Your task to perform on an android device: create a new album in the google photos Image 0: 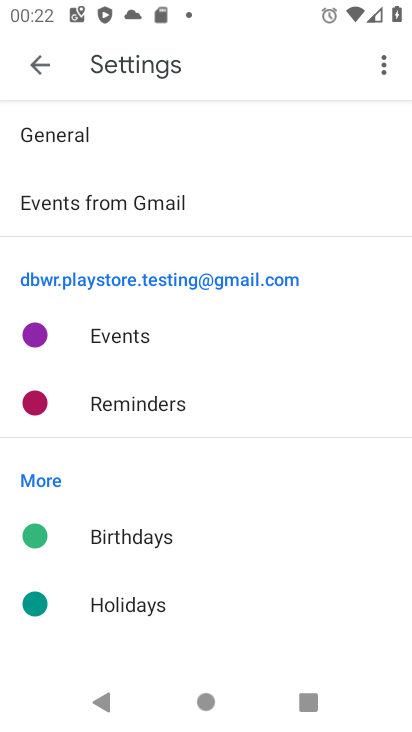
Step 0: press home button
Your task to perform on an android device: create a new album in the google photos Image 1: 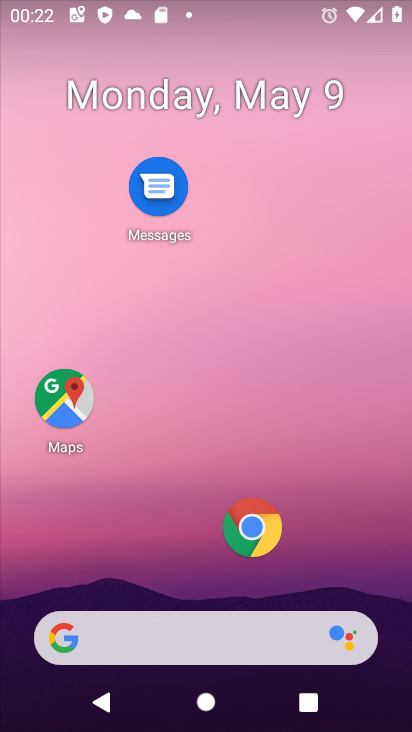
Step 1: drag from (175, 553) to (133, 12)
Your task to perform on an android device: create a new album in the google photos Image 2: 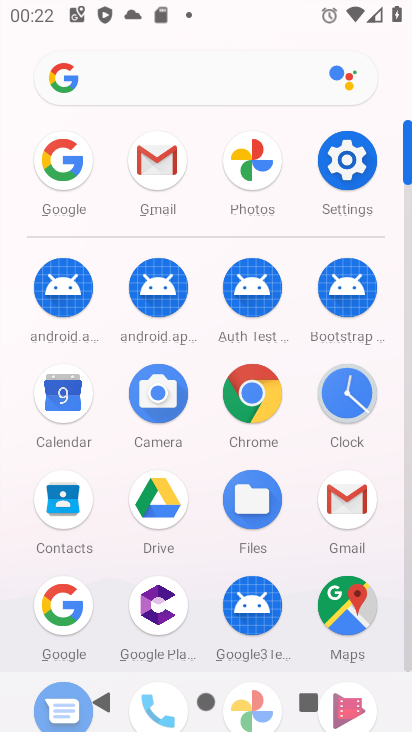
Step 2: click (254, 152)
Your task to perform on an android device: create a new album in the google photos Image 3: 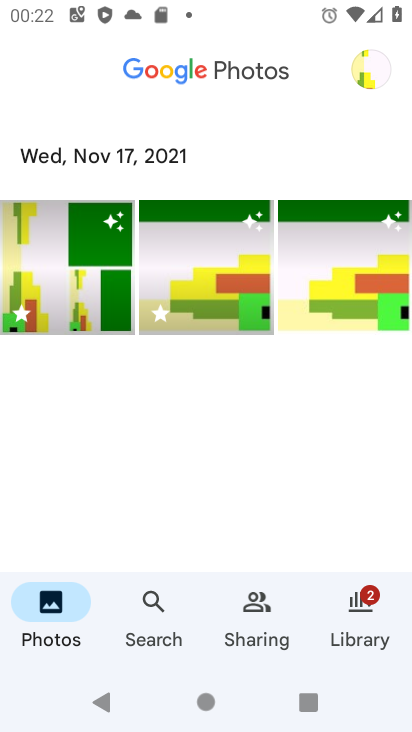
Step 3: click (352, 623)
Your task to perform on an android device: create a new album in the google photos Image 4: 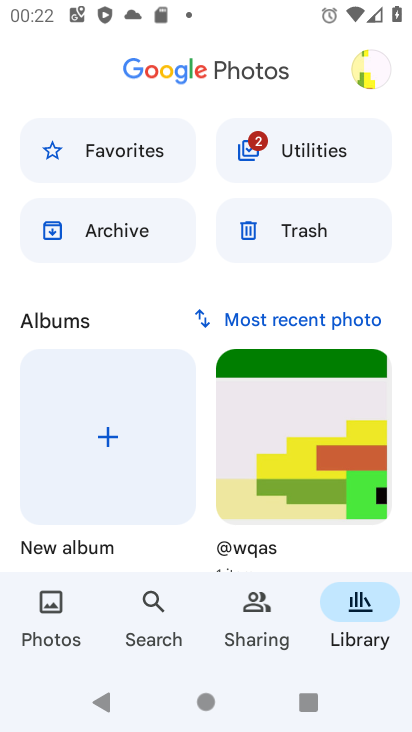
Step 4: click (135, 469)
Your task to perform on an android device: create a new album in the google photos Image 5: 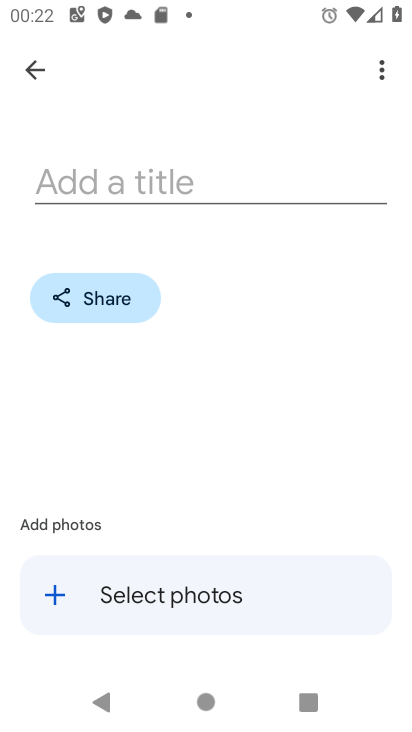
Step 5: click (172, 180)
Your task to perform on an android device: create a new album in the google photos Image 6: 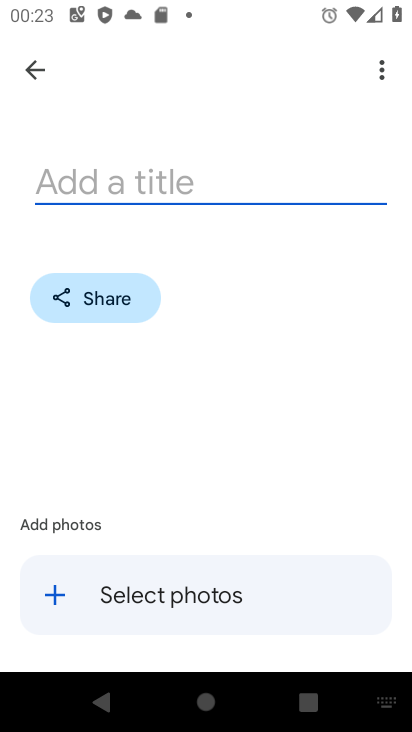
Step 6: type "hfhgg"
Your task to perform on an android device: create a new album in the google photos Image 7: 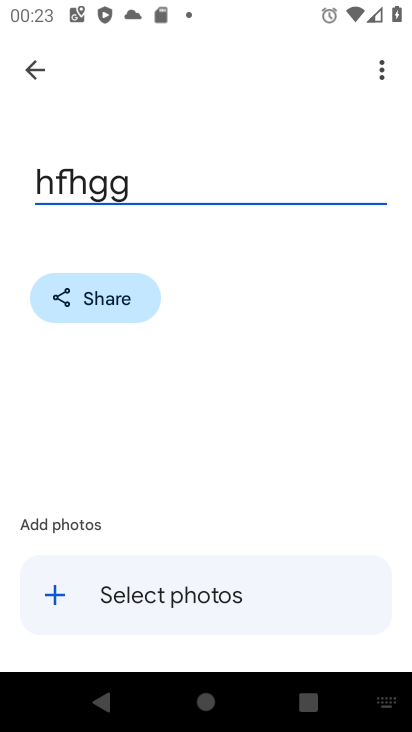
Step 7: click (51, 590)
Your task to perform on an android device: create a new album in the google photos Image 8: 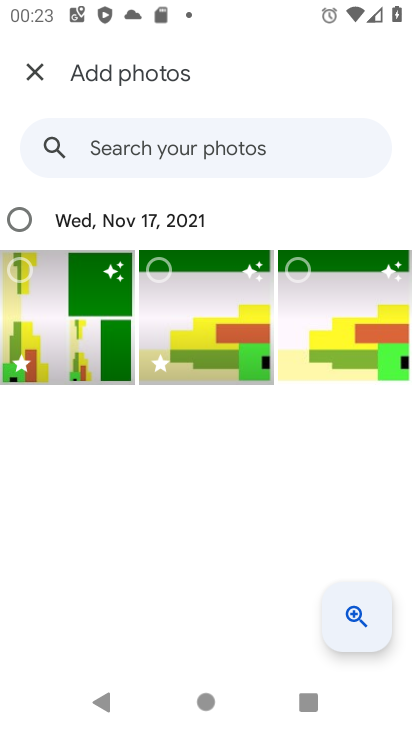
Step 8: click (155, 270)
Your task to perform on an android device: create a new album in the google photos Image 9: 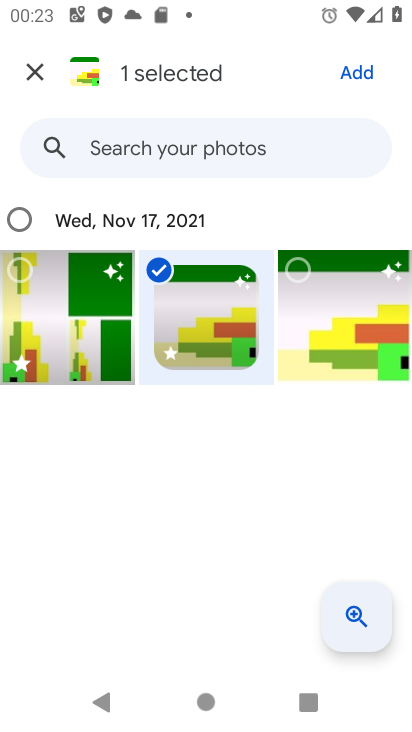
Step 9: click (359, 72)
Your task to perform on an android device: create a new album in the google photos Image 10: 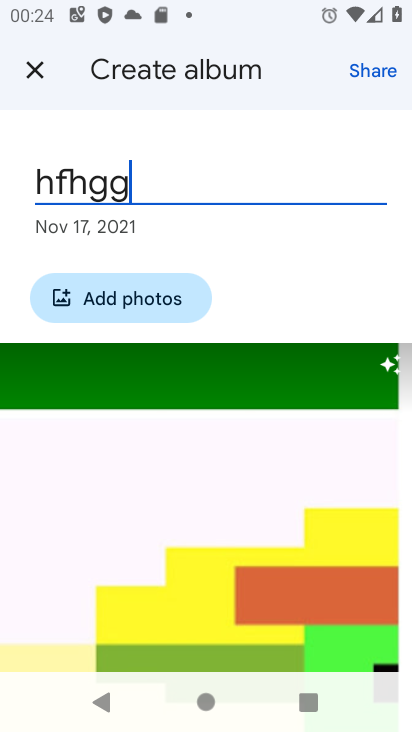
Step 10: task complete